Your task to perform on an android device: Open calendar and show me the second week of next month Image 0: 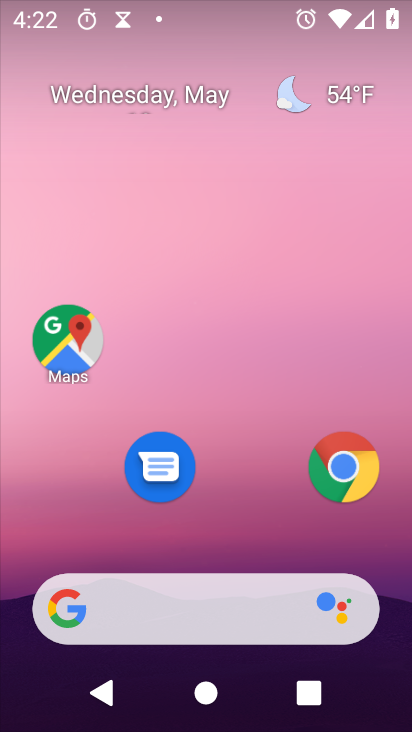
Step 0: drag from (312, 541) to (288, 95)
Your task to perform on an android device: Open calendar and show me the second week of next month Image 1: 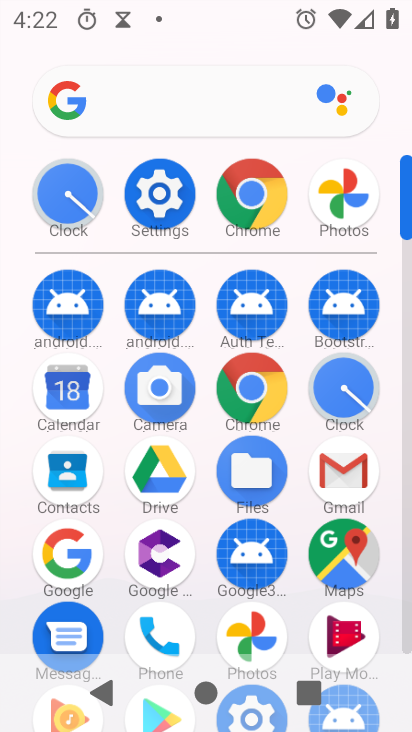
Step 1: click (71, 391)
Your task to perform on an android device: Open calendar and show me the second week of next month Image 2: 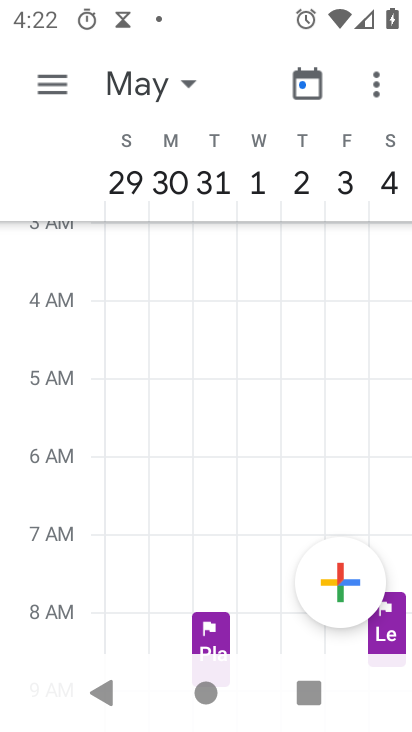
Step 2: click (156, 89)
Your task to perform on an android device: Open calendar and show me the second week of next month Image 3: 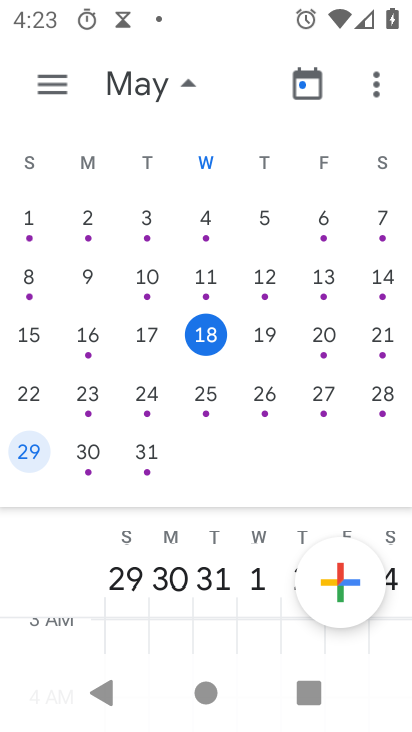
Step 3: drag from (377, 322) to (0, 364)
Your task to perform on an android device: Open calendar and show me the second week of next month Image 4: 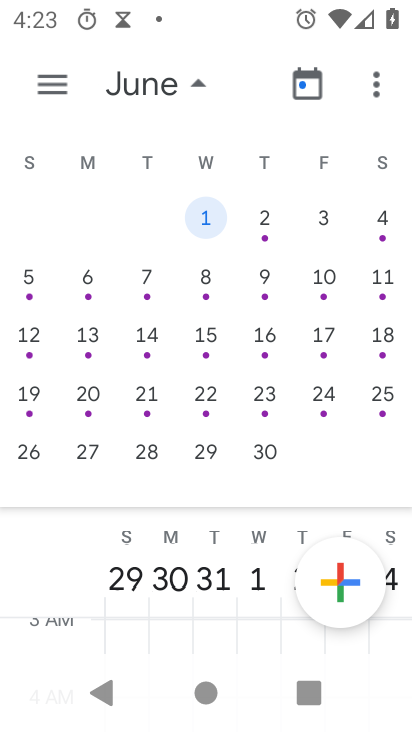
Step 4: click (150, 341)
Your task to perform on an android device: Open calendar and show me the second week of next month Image 5: 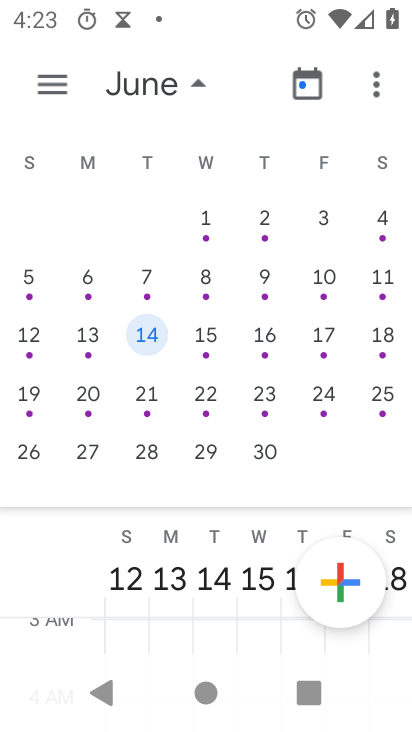
Step 5: task complete